Your task to perform on an android device: Turn off the flashlight Image 0: 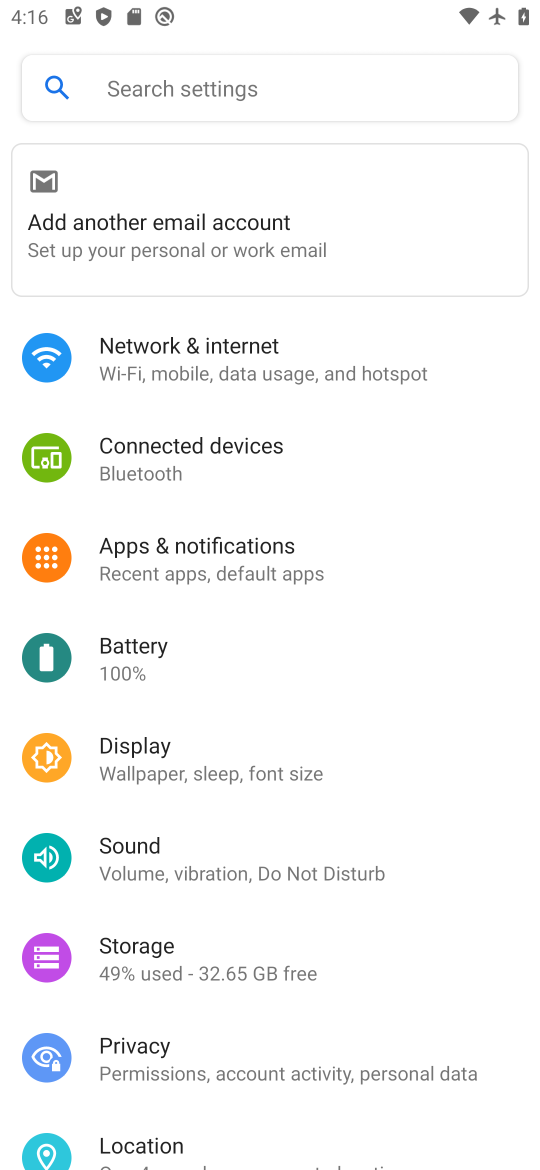
Step 0: click (178, 758)
Your task to perform on an android device: Turn off the flashlight Image 1: 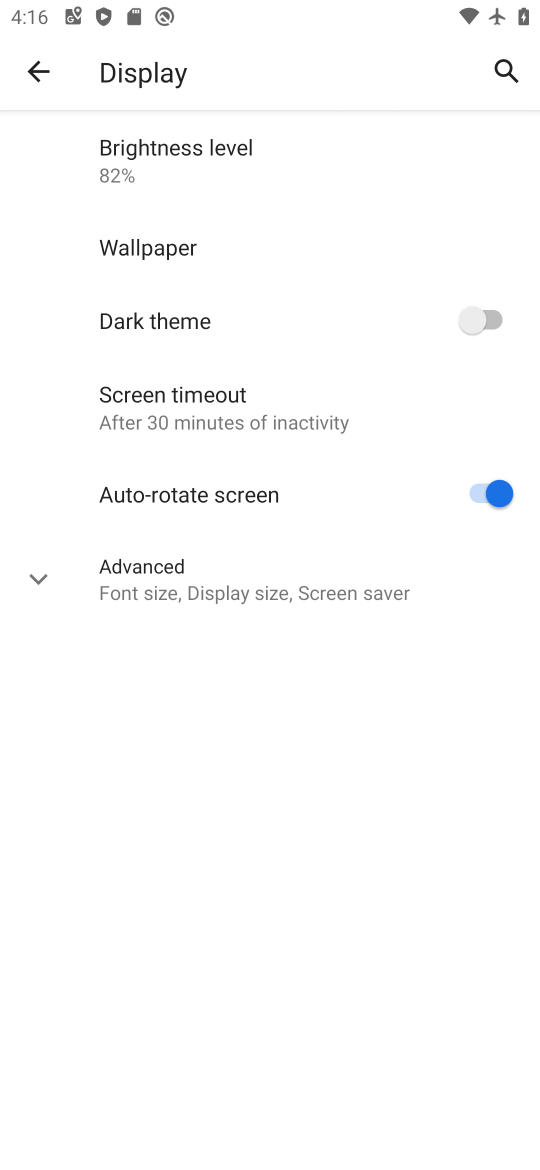
Step 1: click (198, 410)
Your task to perform on an android device: Turn off the flashlight Image 2: 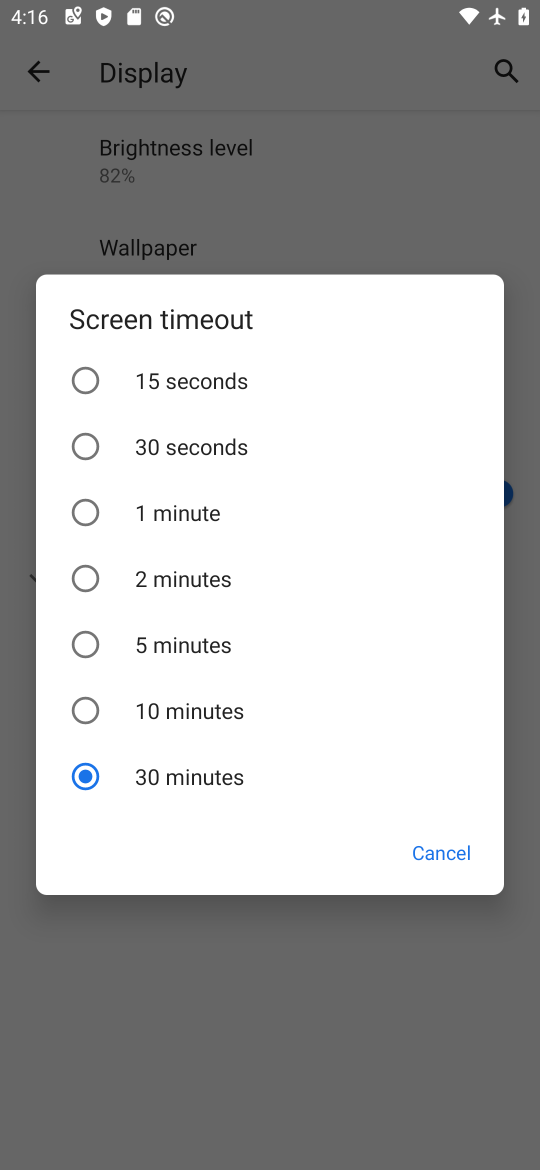
Step 2: task complete